Your task to perform on an android device: Clear the shopping cart on costco.com. Search for dell xps on costco.com, select the first entry, add it to the cart, then select checkout. Image 0: 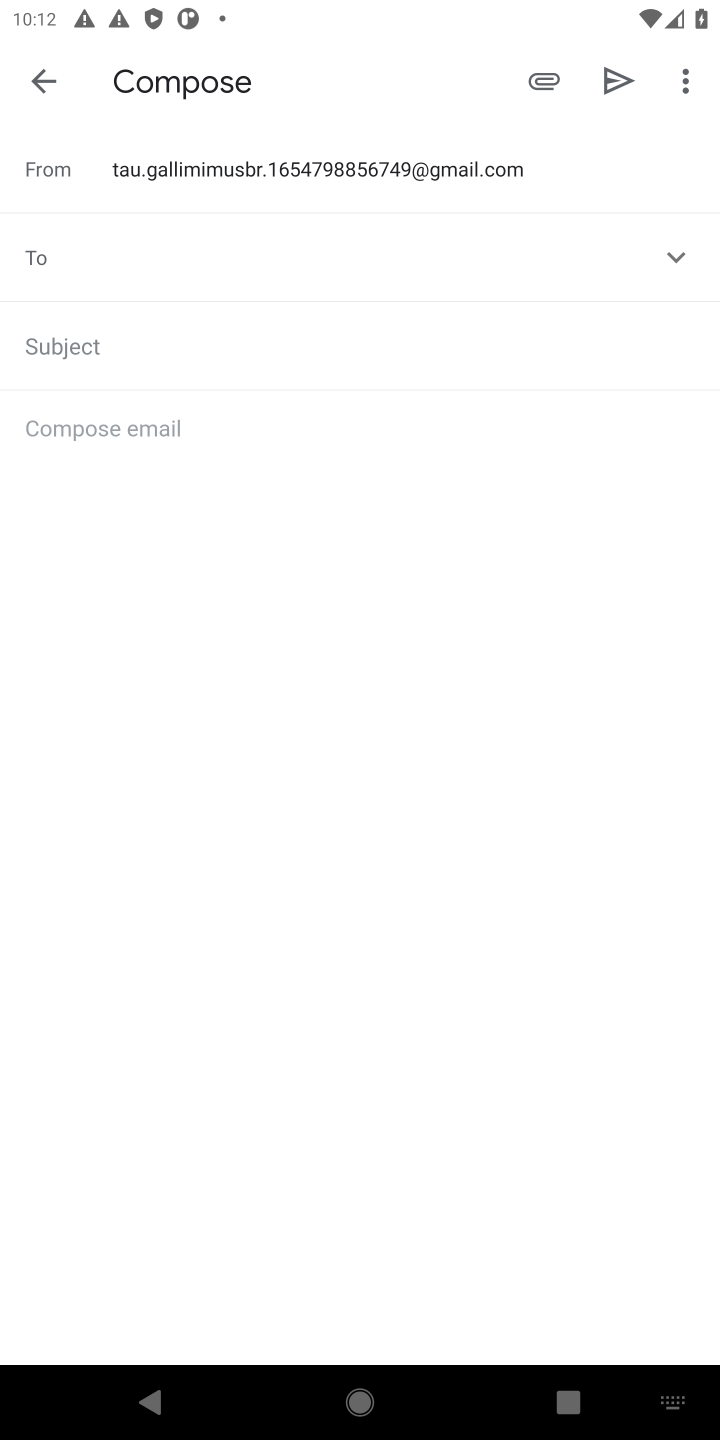
Step 0: press home button
Your task to perform on an android device: Clear the shopping cart on costco.com. Search for dell xps on costco.com, select the first entry, add it to the cart, then select checkout. Image 1: 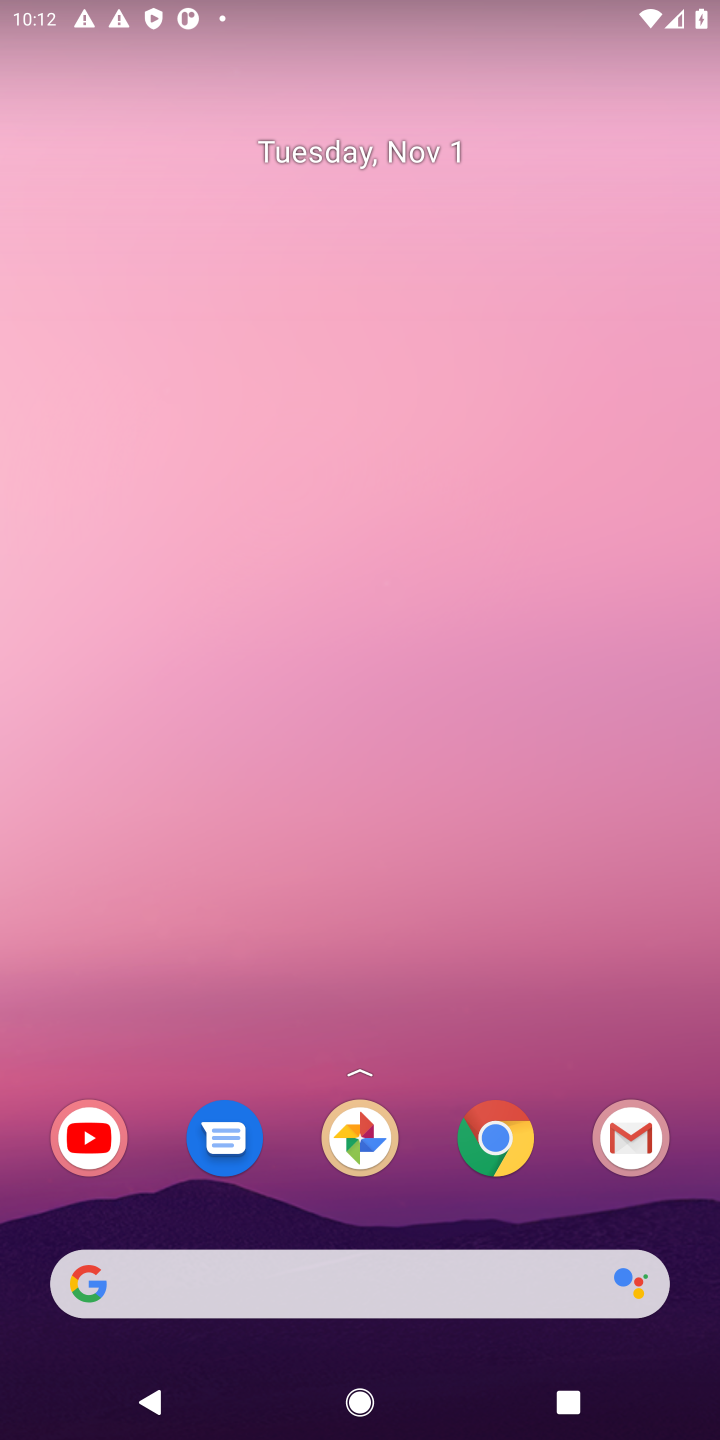
Step 1: click (514, 1132)
Your task to perform on an android device: Clear the shopping cart on costco.com. Search for dell xps on costco.com, select the first entry, add it to the cart, then select checkout. Image 2: 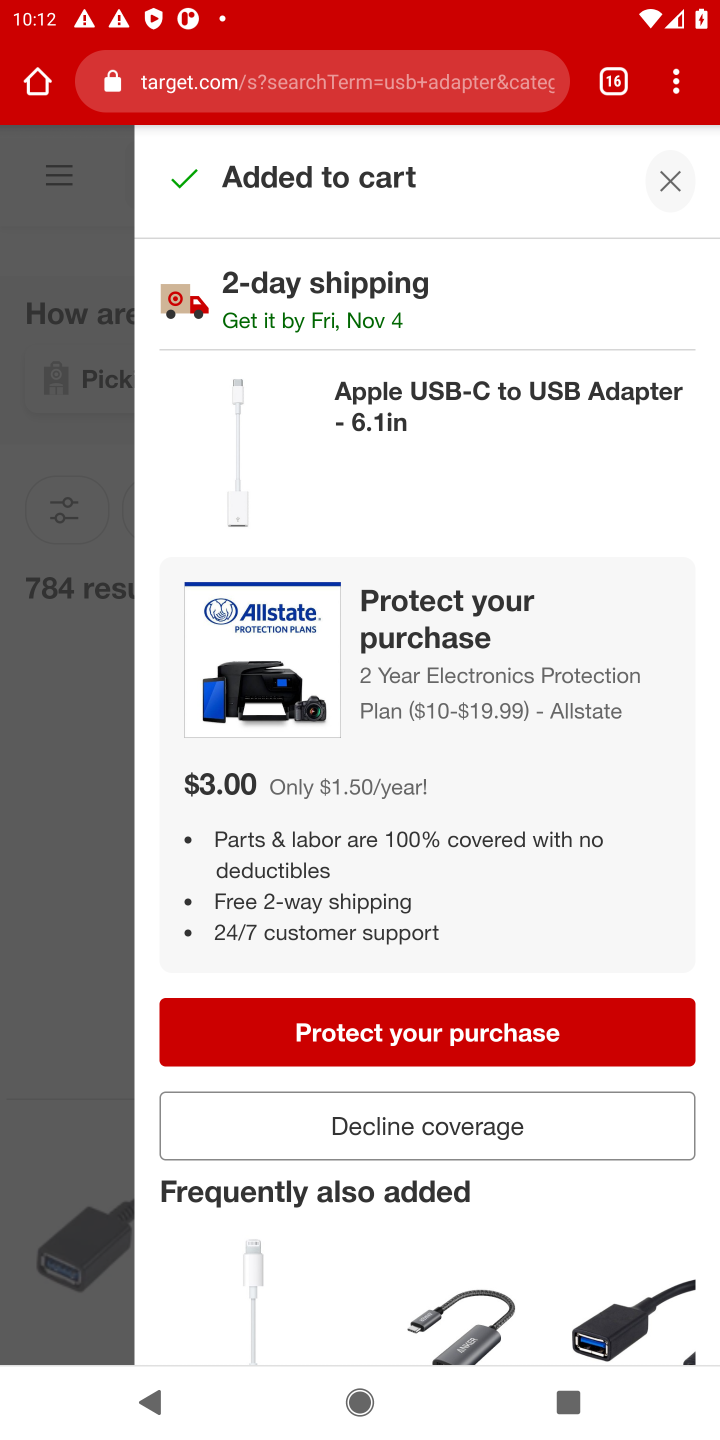
Step 2: drag from (674, 88) to (375, 176)
Your task to perform on an android device: Clear the shopping cart on costco.com. Search for dell xps on costco.com, select the first entry, add it to the cart, then select checkout. Image 3: 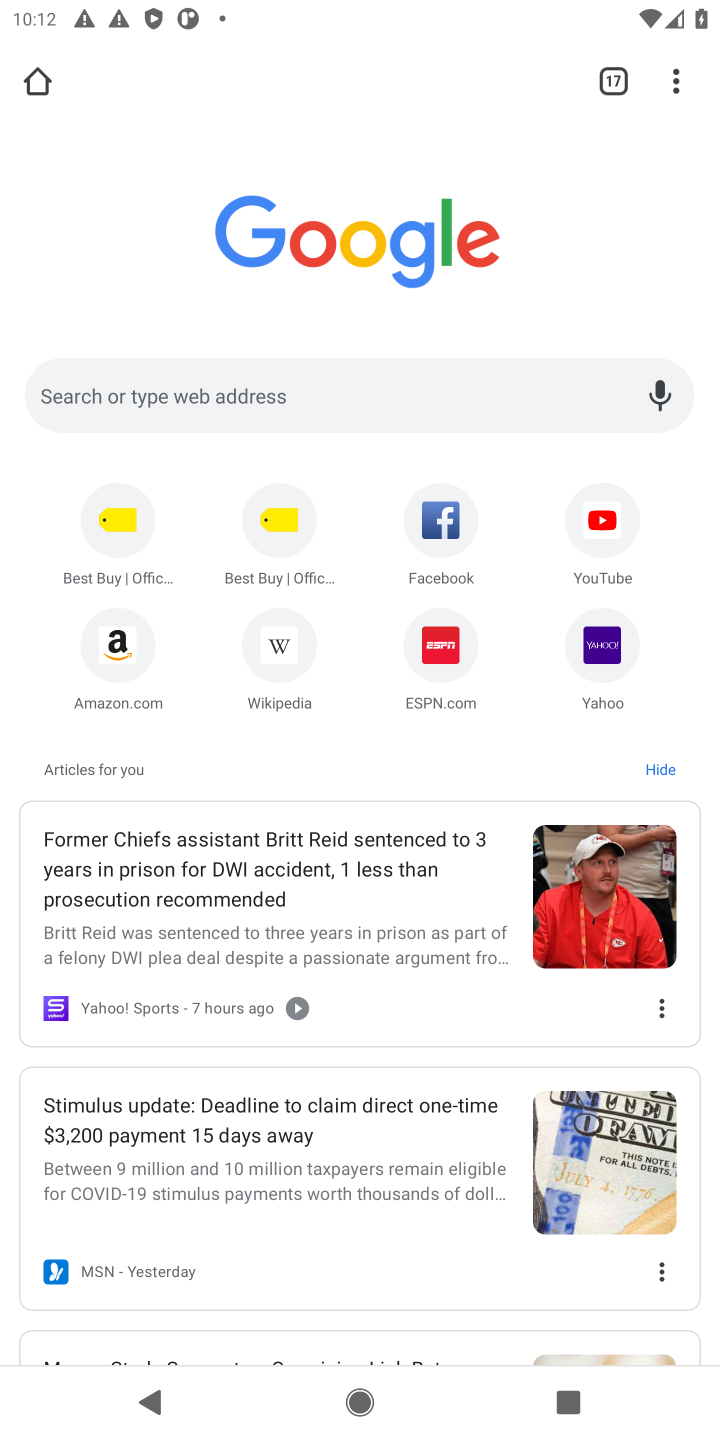
Step 3: click (321, 394)
Your task to perform on an android device: Clear the shopping cart on costco.com. Search for dell xps on costco.com, select the first entry, add it to the cart, then select checkout. Image 4: 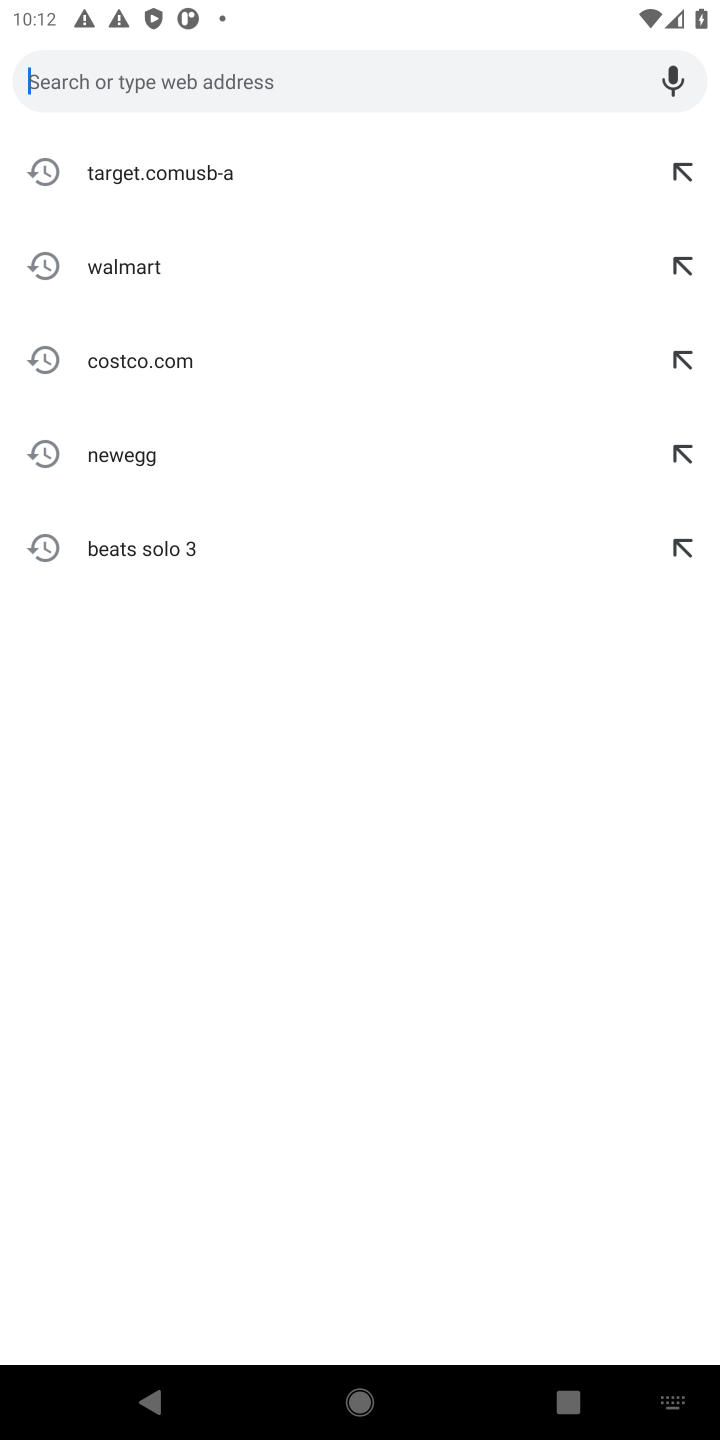
Step 4: type "costco.com."
Your task to perform on an android device: Clear the shopping cart on costco.com. Search for dell xps on costco.com, select the first entry, add it to the cart, then select checkout. Image 5: 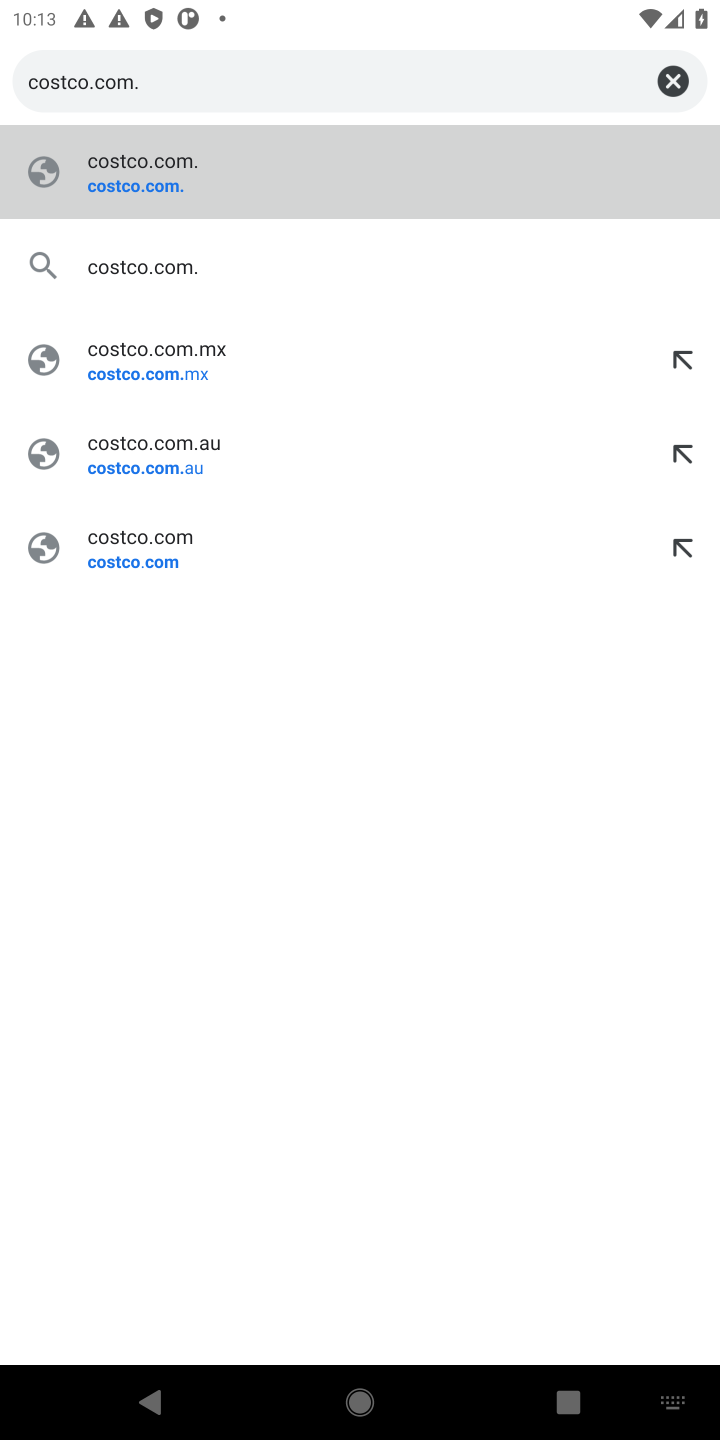
Step 5: click (139, 204)
Your task to perform on an android device: Clear the shopping cart on costco.com. Search for dell xps on costco.com, select the first entry, add it to the cart, then select checkout. Image 6: 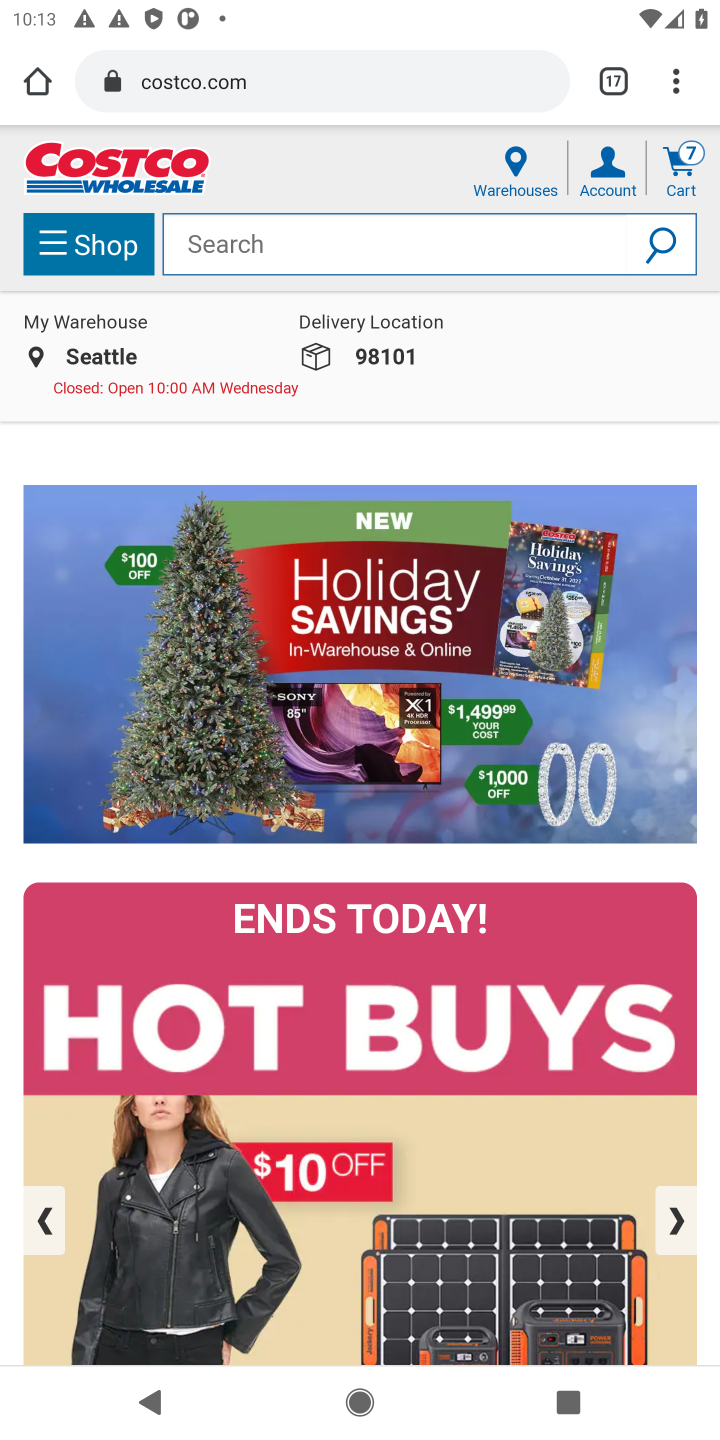
Step 6: click (405, 246)
Your task to perform on an android device: Clear the shopping cart on costco.com. Search for dell xps on costco.com, select the first entry, add it to the cart, then select checkout. Image 7: 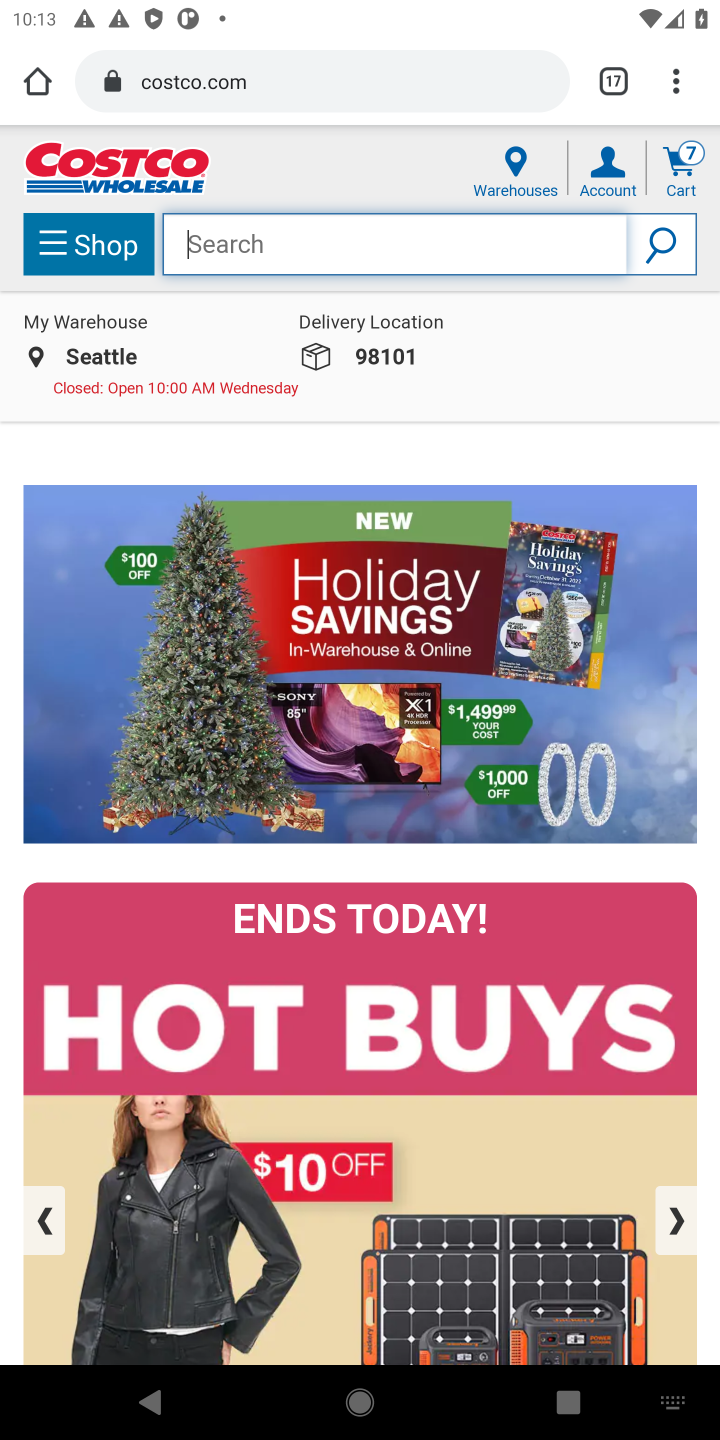
Step 7: type "dell xps "
Your task to perform on an android device: Clear the shopping cart on costco.com. Search for dell xps on costco.com, select the first entry, add it to the cart, then select checkout. Image 8: 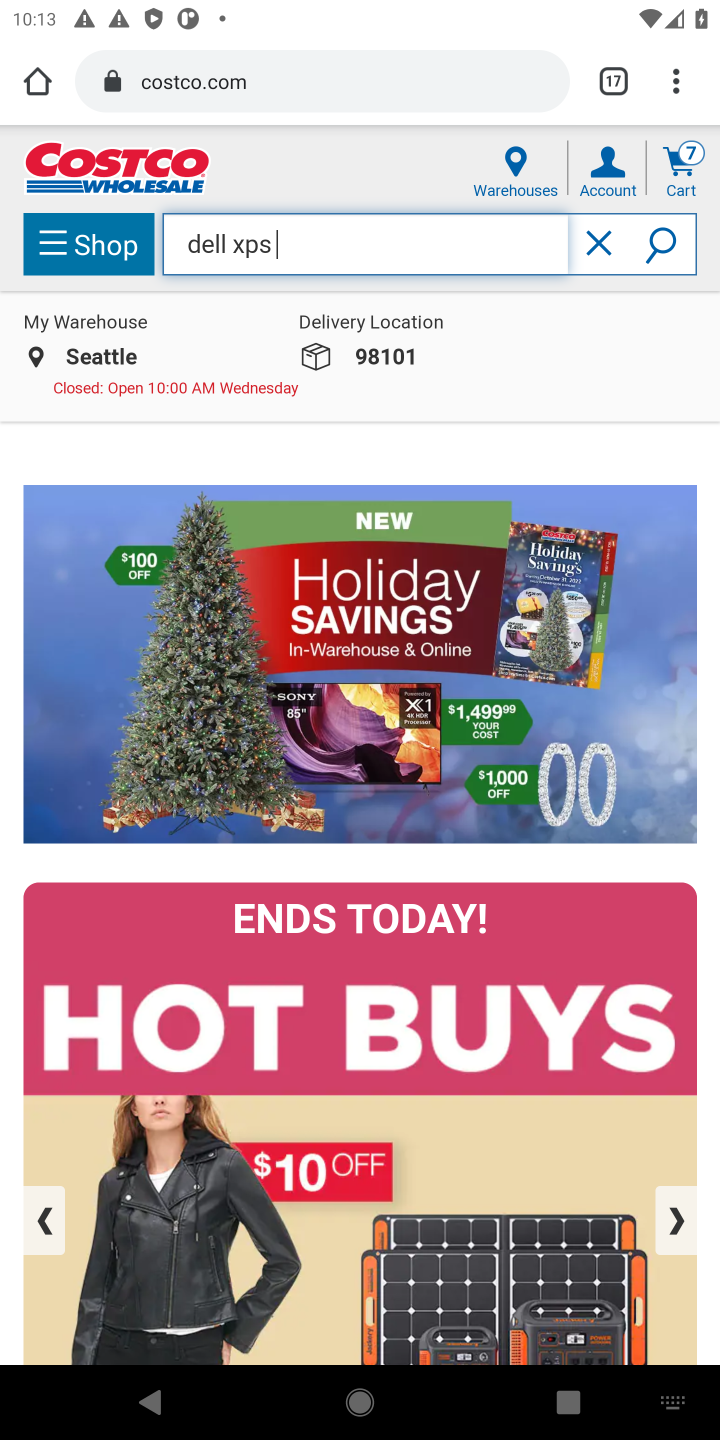
Step 8: type ""
Your task to perform on an android device: Clear the shopping cart on costco.com. Search for dell xps on costco.com, select the first entry, add it to the cart, then select checkout. Image 9: 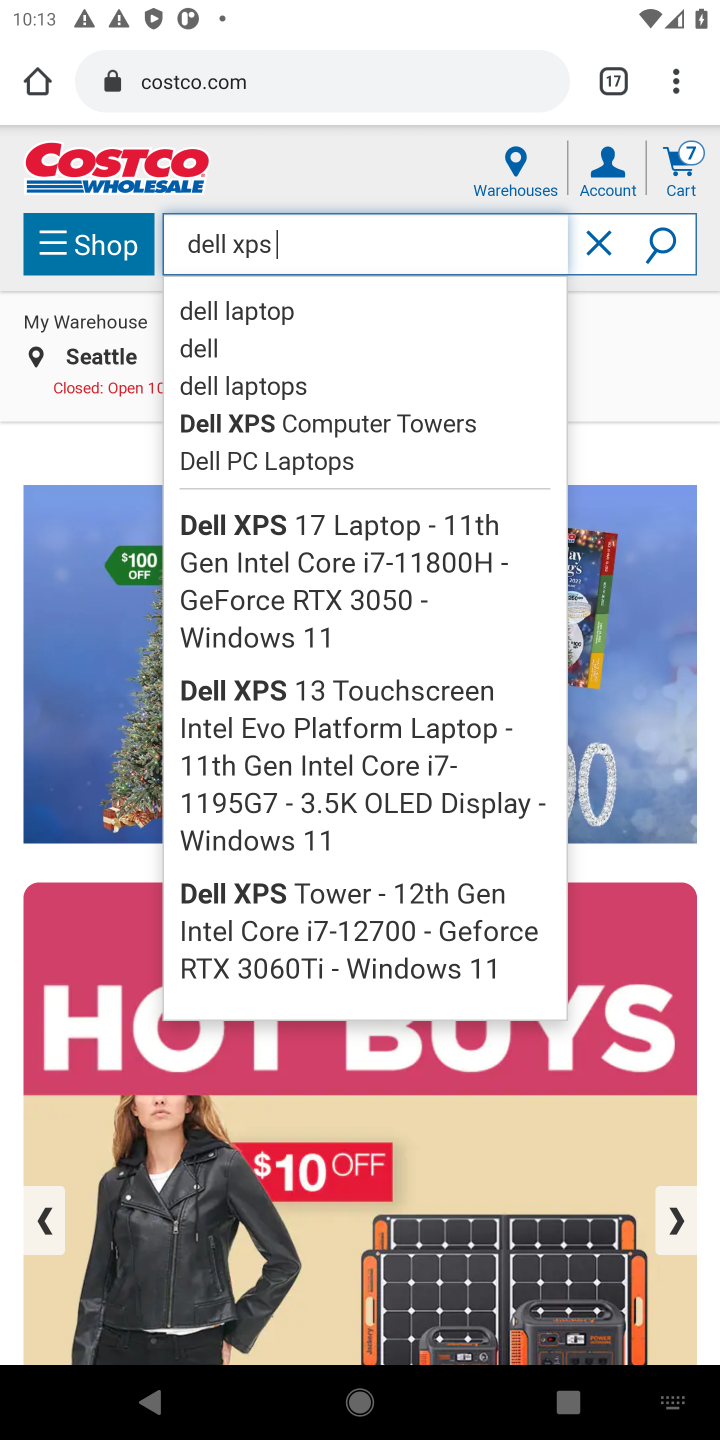
Step 9: click (280, 425)
Your task to perform on an android device: Clear the shopping cart on costco.com. Search for dell xps on costco.com, select the first entry, add it to the cart, then select checkout. Image 10: 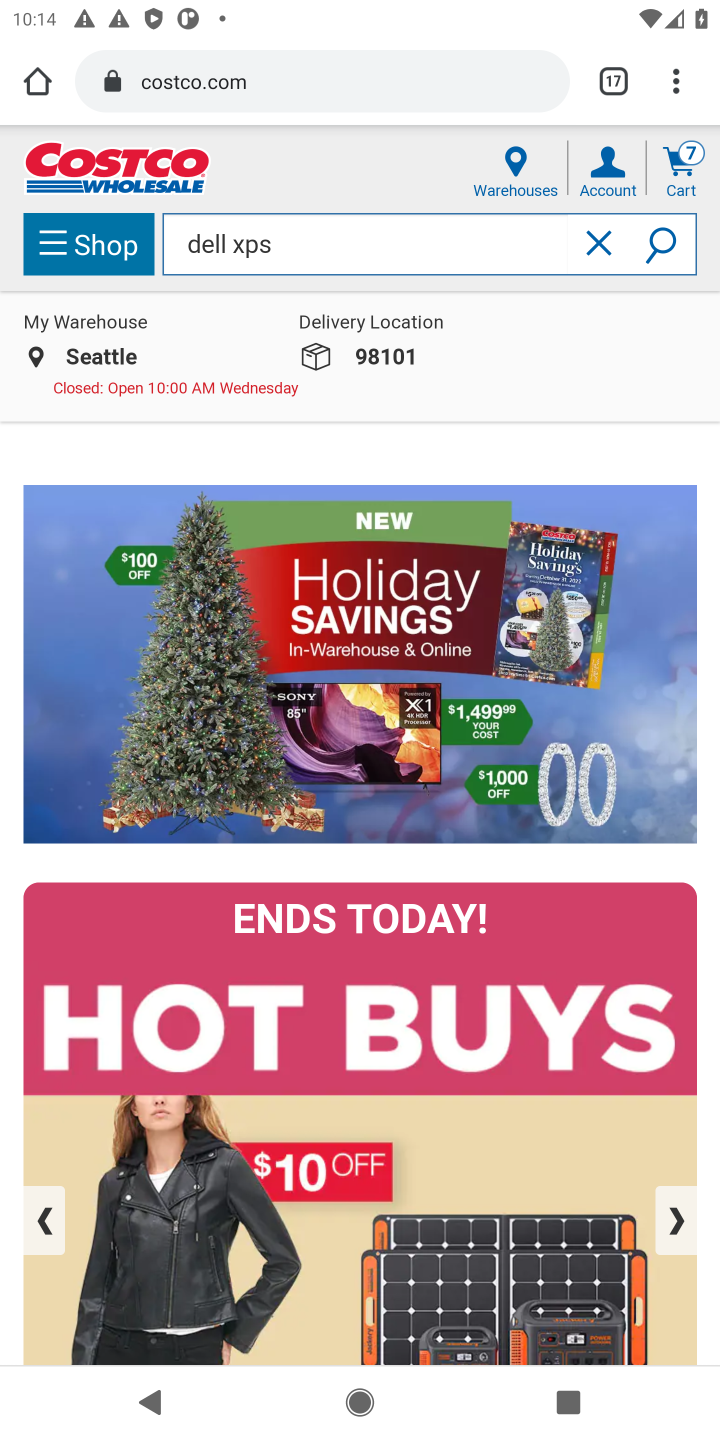
Step 10: click (668, 238)
Your task to perform on an android device: Clear the shopping cart on costco.com. Search for dell xps on costco.com, select the first entry, add it to the cart, then select checkout. Image 11: 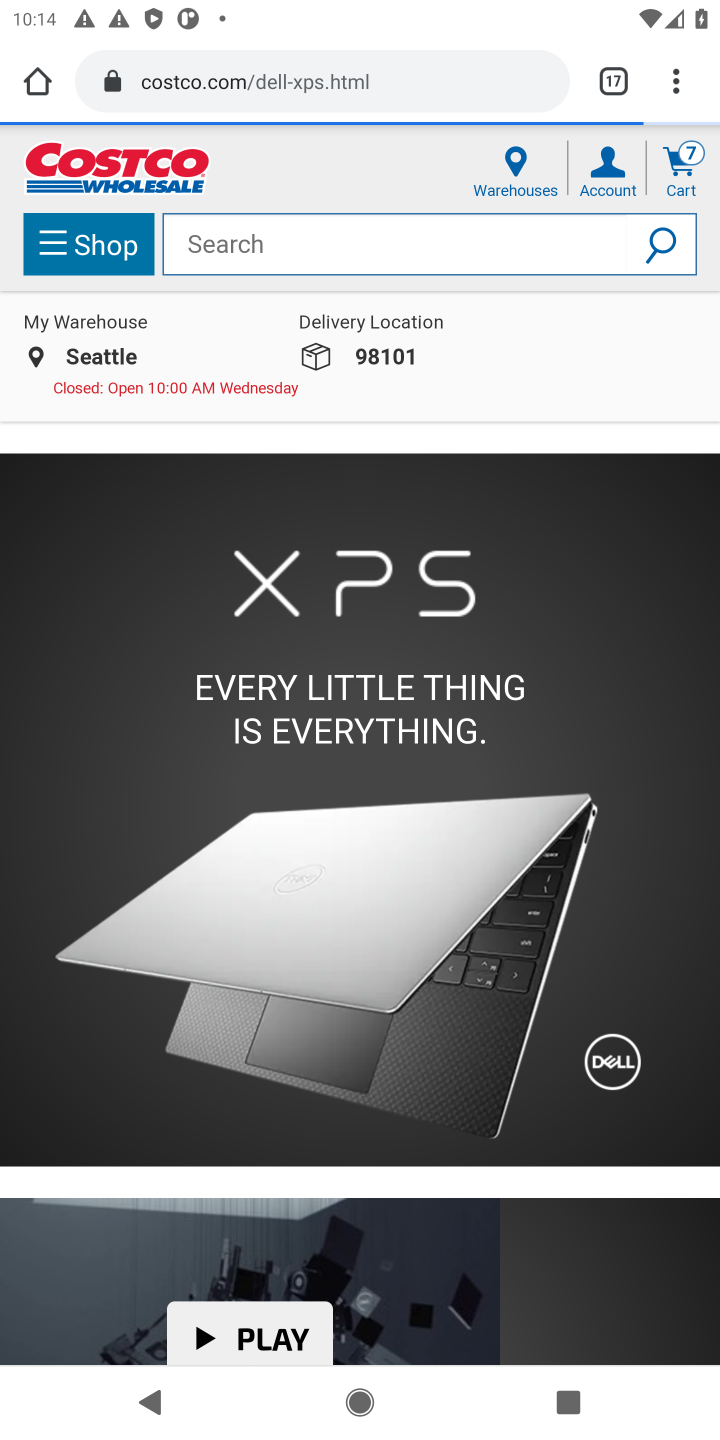
Step 11: drag from (359, 977) to (370, 298)
Your task to perform on an android device: Clear the shopping cart on costco.com. Search for dell xps on costco.com, select the first entry, add it to the cart, then select checkout. Image 12: 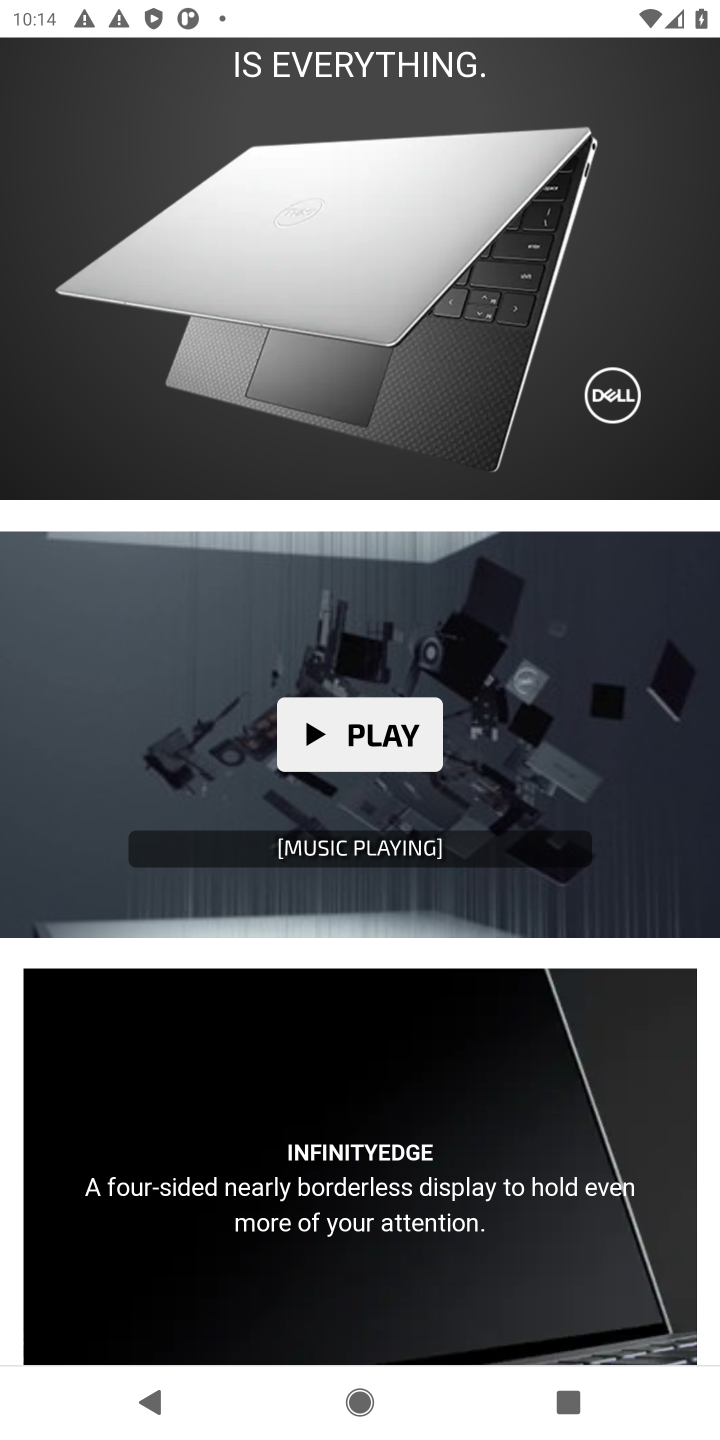
Step 12: drag from (448, 1058) to (431, 475)
Your task to perform on an android device: Clear the shopping cart on costco.com. Search for dell xps on costco.com, select the first entry, add it to the cart, then select checkout. Image 13: 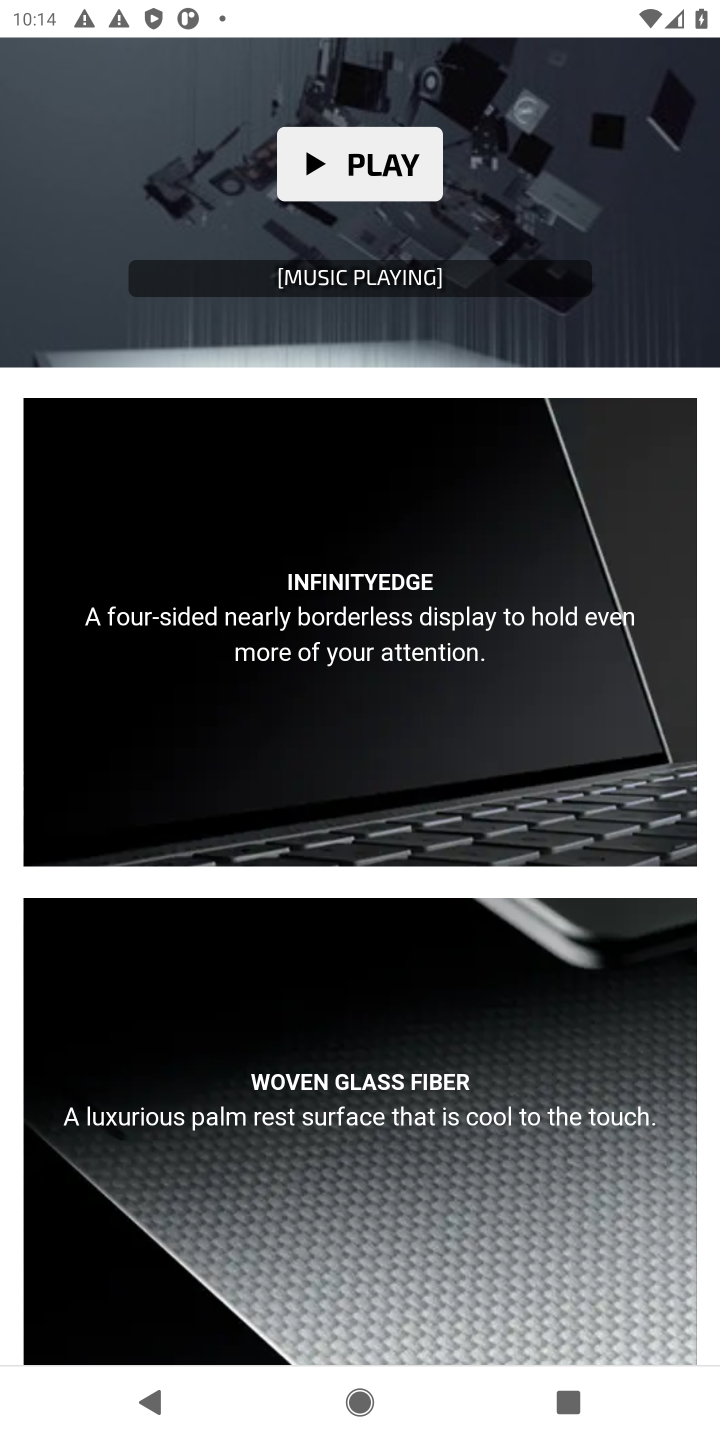
Step 13: click (393, 719)
Your task to perform on an android device: Clear the shopping cart on costco.com. Search for dell xps on costco.com, select the first entry, add it to the cart, then select checkout. Image 14: 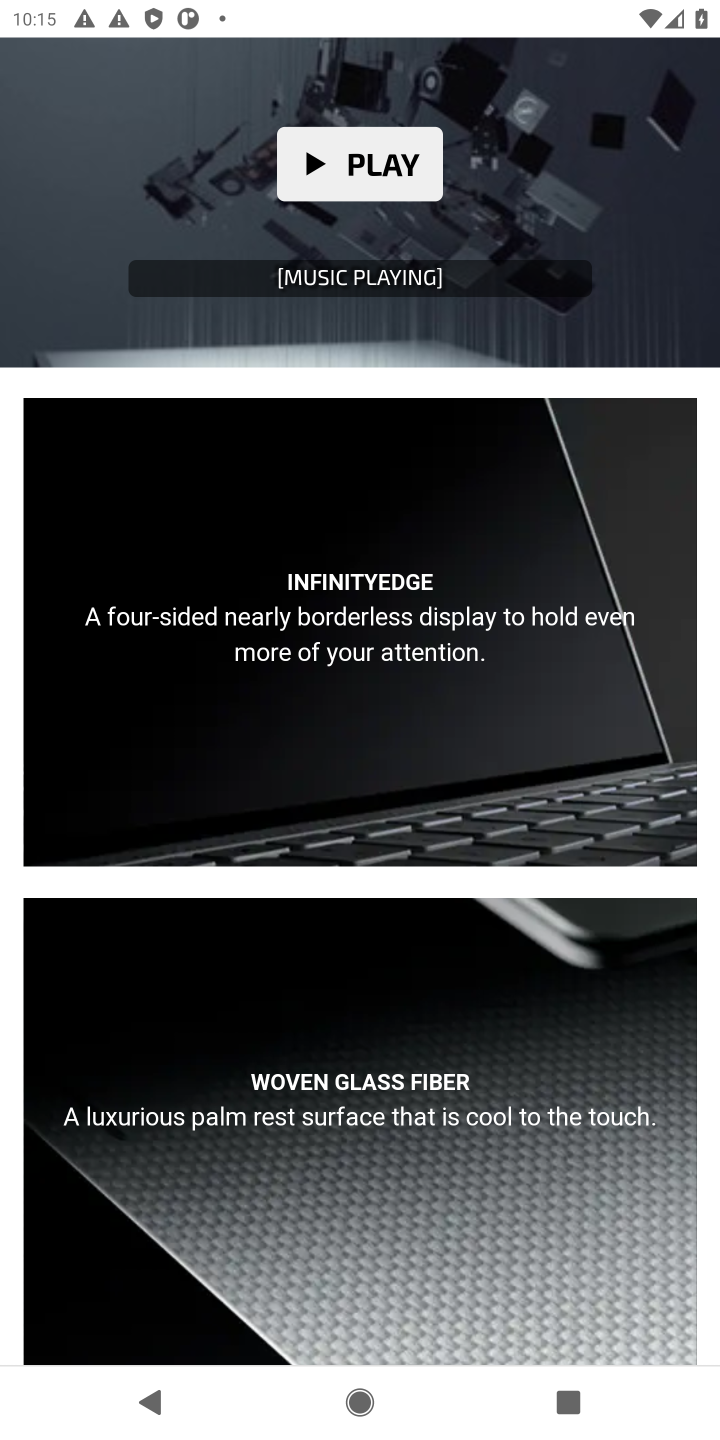
Step 14: task complete